Your task to perform on an android device: Go to Wikipedia Image 0: 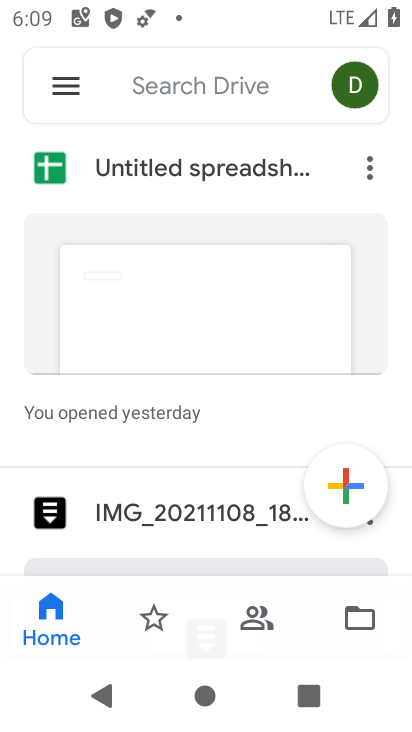
Step 0: press home button
Your task to perform on an android device: Go to Wikipedia Image 1: 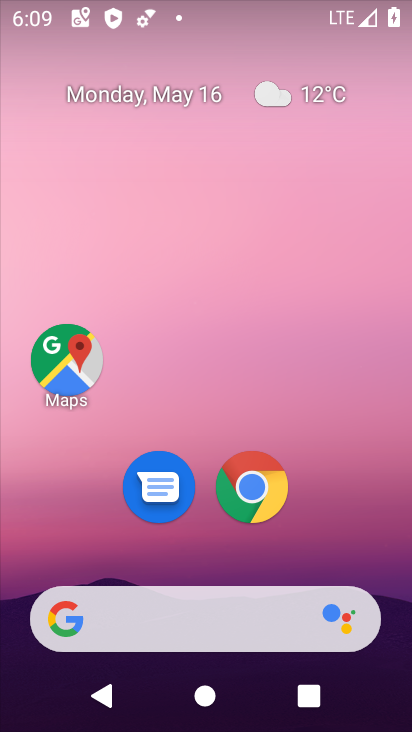
Step 1: click (256, 475)
Your task to perform on an android device: Go to Wikipedia Image 2: 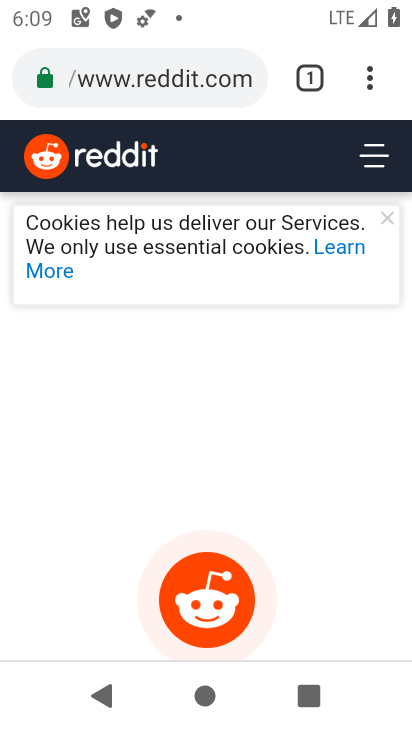
Step 2: click (205, 69)
Your task to perform on an android device: Go to Wikipedia Image 3: 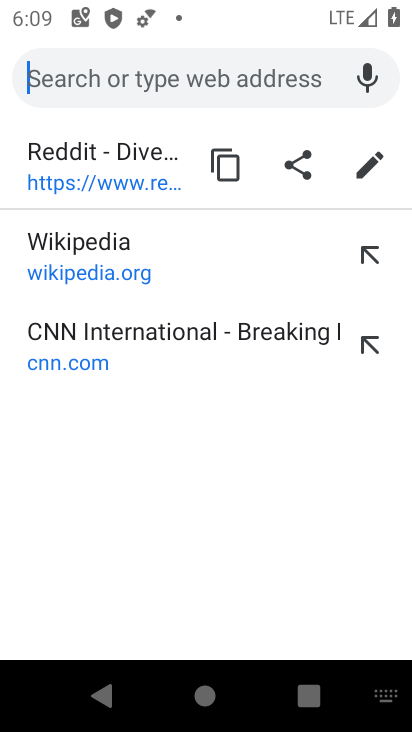
Step 3: click (86, 267)
Your task to perform on an android device: Go to Wikipedia Image 4: 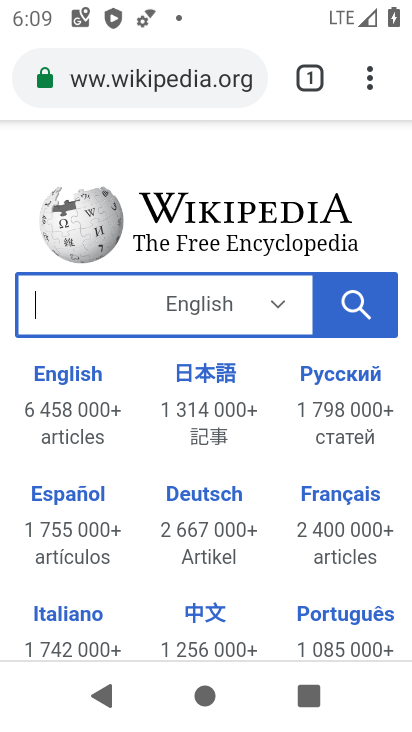
Step 4: task complete